Your task to perform on an android device: Open accessibility settings Image 0: 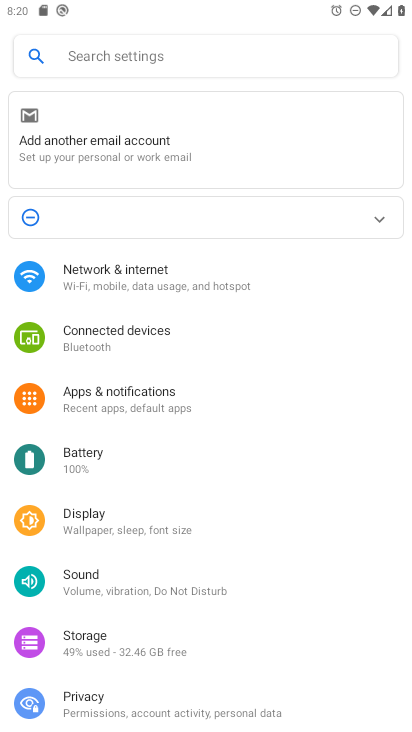
Step 0: drag from (190, 543) to (214, 248)
Your task to perform on an android device: Open accessibility settings Image 1: 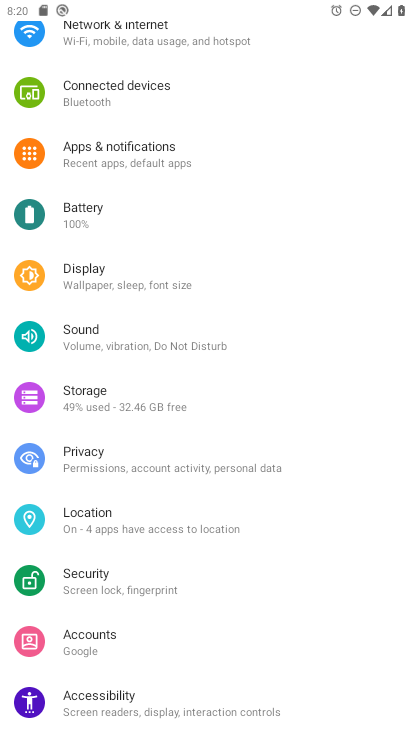
Step 1: drag from (216, 582) to (242, 301)
Your task to perform on an android device: Open accessibility settings Image 2: 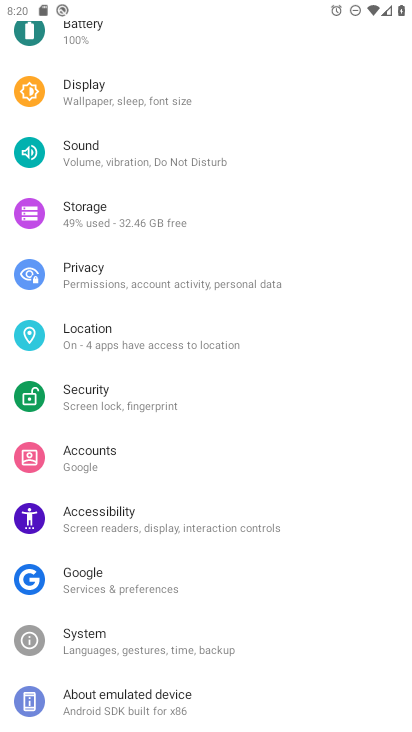
Step 2: click (135, 534)
Your task to perform on an android device: Open accessibility settings Image 3: 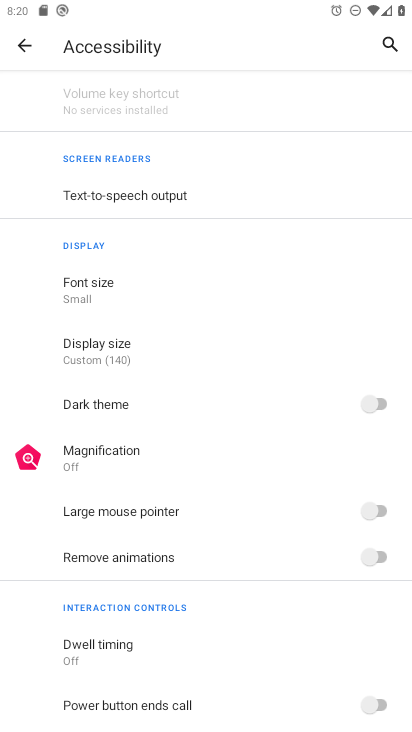
Step 3: task complete